Your task to perform on an android device: check the backup settings in the google photos Image 0: 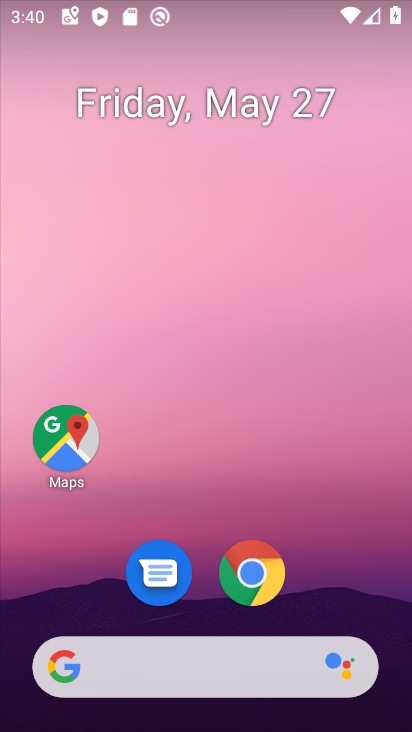
Step 0: drag from (214, 476) to (227, 16)
Your task to perform on an android device: check the backup settings in the google photos Image 1: 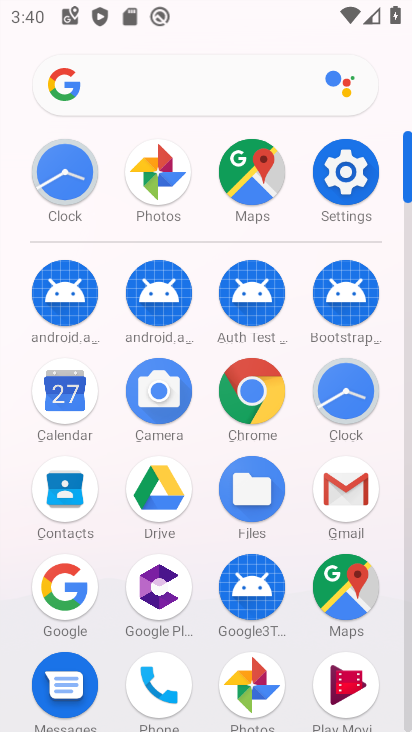
Step 1: click (163, 185)
Your task to perform on an android device: check the backup settings in the google photos Image 2: 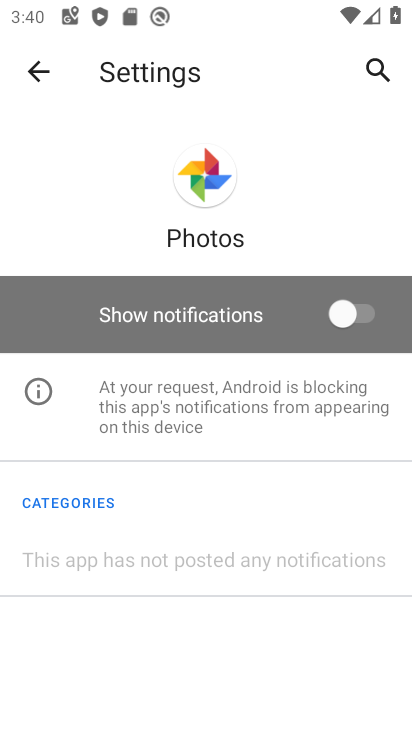
Step 2: click (40, 71)
Your task to perform on an android device: check the backup settings in the google photos Image 3: 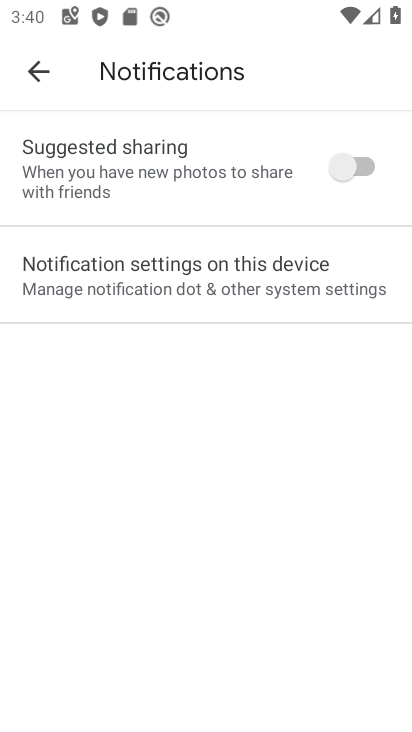
Step 3: click (40, 69)
Your task to perform on an android device: check the backup settings in the google photos Image 4: 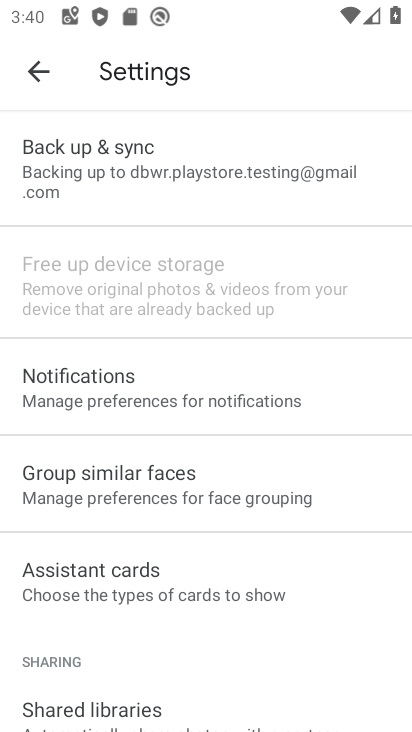
Step 4: click (88, 153)
Your task to perform on an android device: check the backup settings in the google photos Image 5: 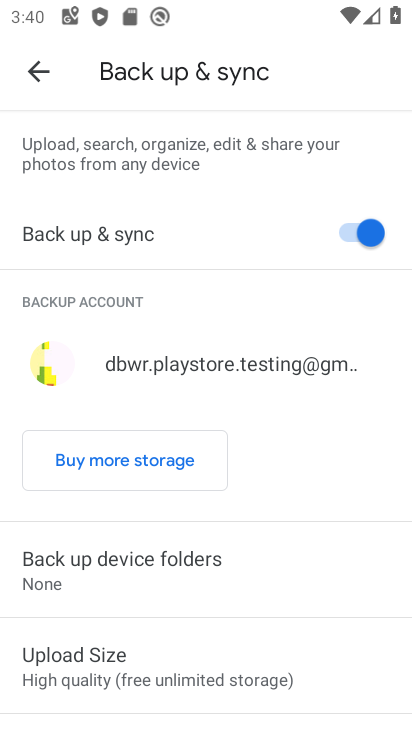
Step 5: task complete